Your task to perform on an android device: find snoozed emails in the gmail app Image 0: 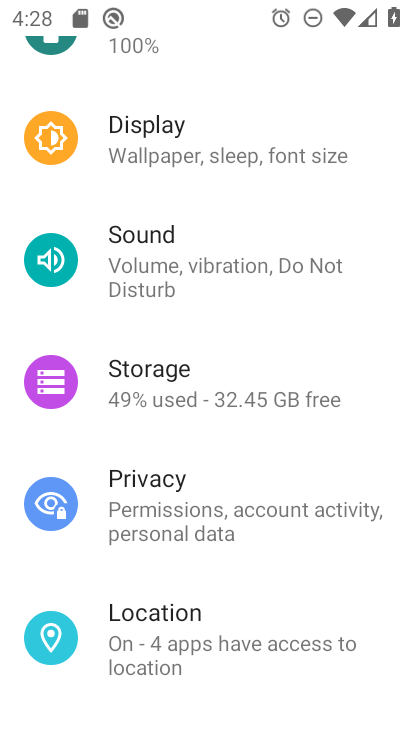
Step 0: press home button
Your task to perform on an android device: find snoozed emails in the gmail app Image 1: 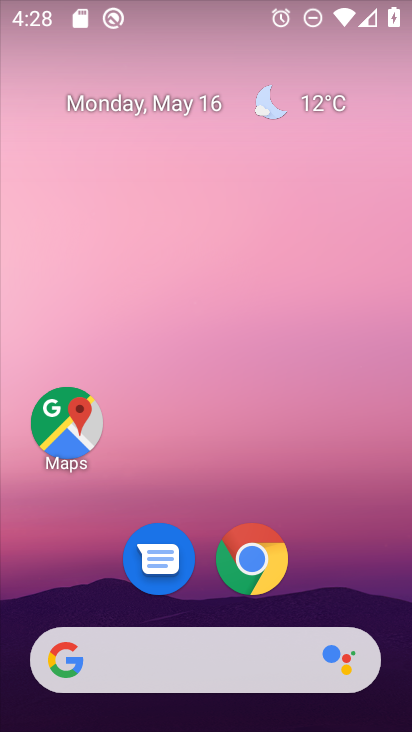
Step 1: drag from (386, 605) to (368, 225)
Your task to perform on an android device: find snoozed emails in the gmail app Image 2: 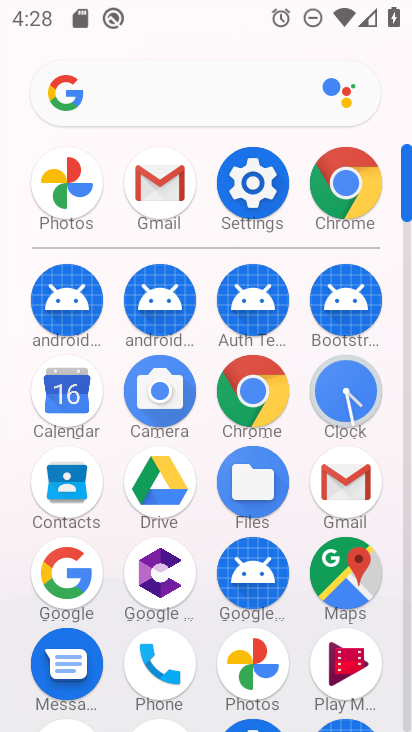
Step 2: click (164, 186)
Your task to perform on an android device: find snoozed emails in the gmail app Image 3: 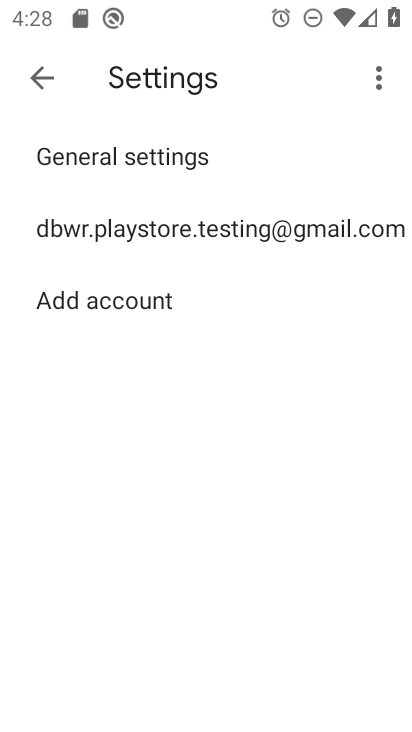
Step 3: click (43, 91)
Your task to perform on an android device: find snoozed emails in the gmail app Image 4: 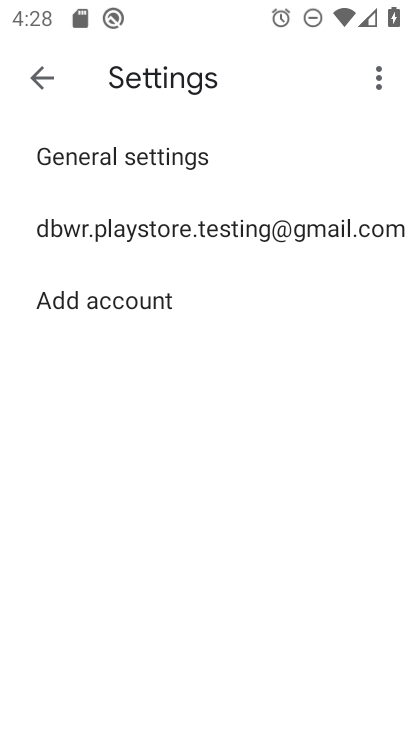
Step 4: click (34, 88)
Your task to perform on an android device: find snoozed emails in the gmail app Image 5: 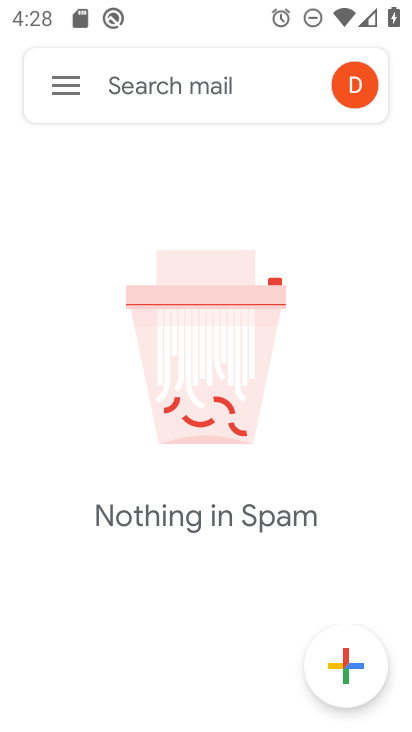
Step 5: click (60, 88)
Your task to perform on an android device: find snoozed emails in the gmail app Image 6: 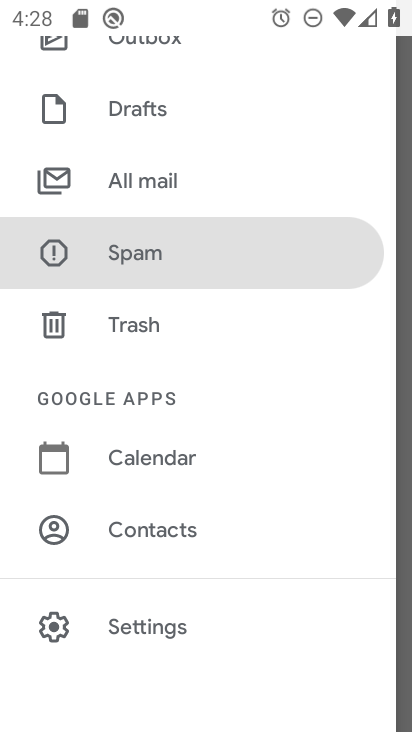
Step 6: drag from (154, 430) to (150, 529)
Your task to perform on an android device: find snoozed emails in the gmail app Image 7: 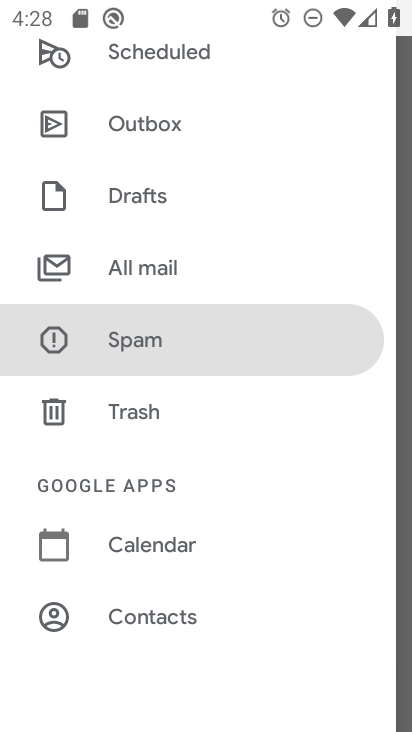
Step 7: drag from (158, 167) to (193, 434)
Your task to perform on an android device: find snoozed emails in the gmail app Image 8: 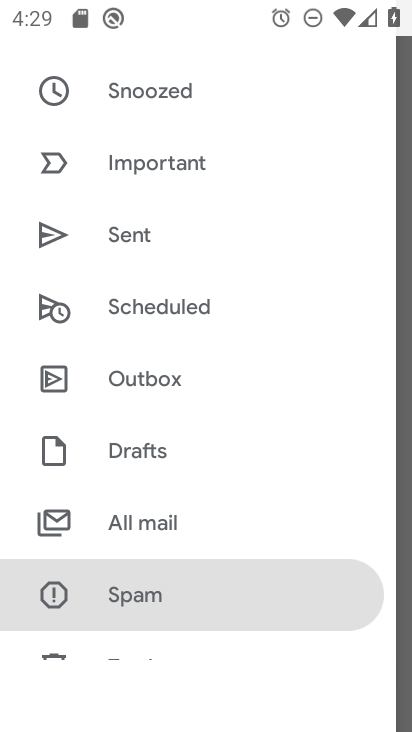
Step 8: click (185, 104)
Your task to perform on an android device: find snoozed emails in the gmail app Image 9: 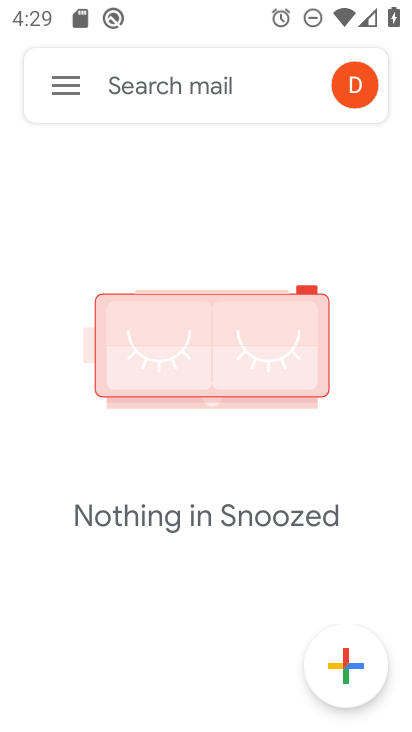
Step 9: task complete